Your task to perform on an android device: Open Google Chrome and open the bookmarks view Image 0: 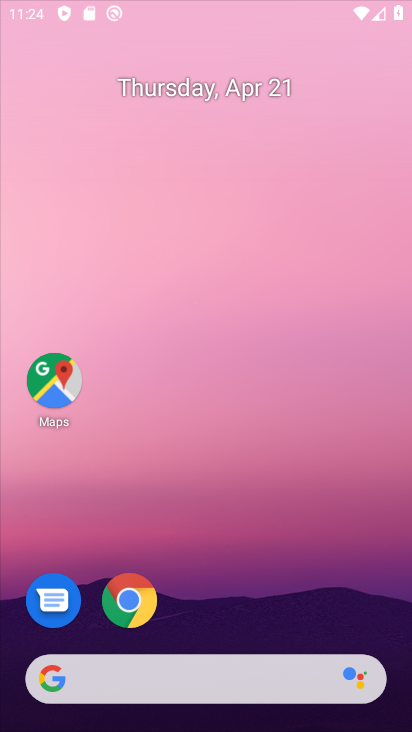
Step 0: press home button
Your task to perform on an android device: Open Google Chrome and open the bookmarks view Image 1: 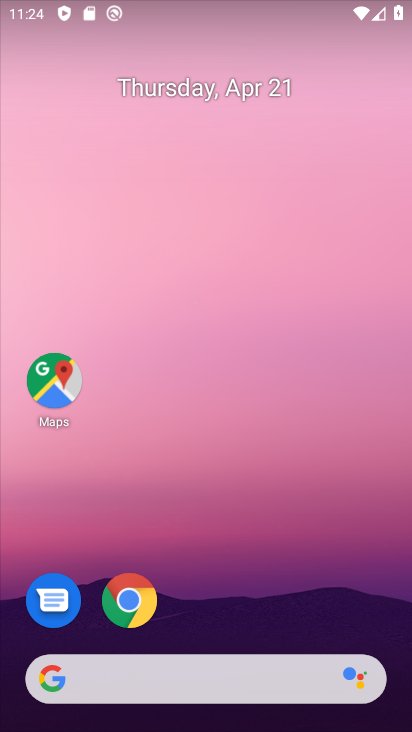
Step 1: click (133, 621)
Your task to perform on an android device: Open Google Chrome and open the bookmarks view Image 2: 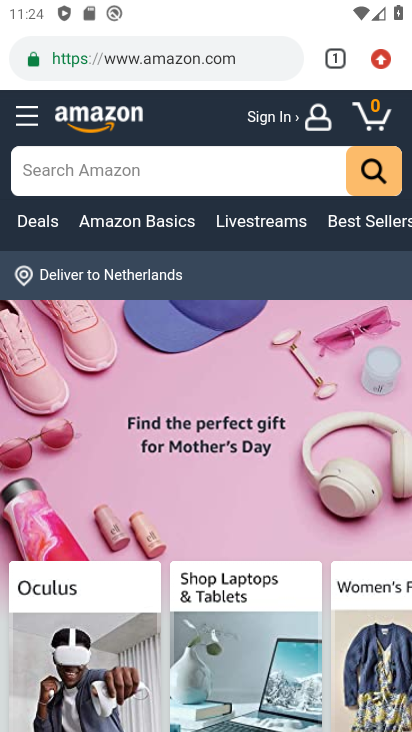
Step 2: click (381, 58)
Your task to perform on an android device: Open Google Chrome and open the bookmarks view Image 3: 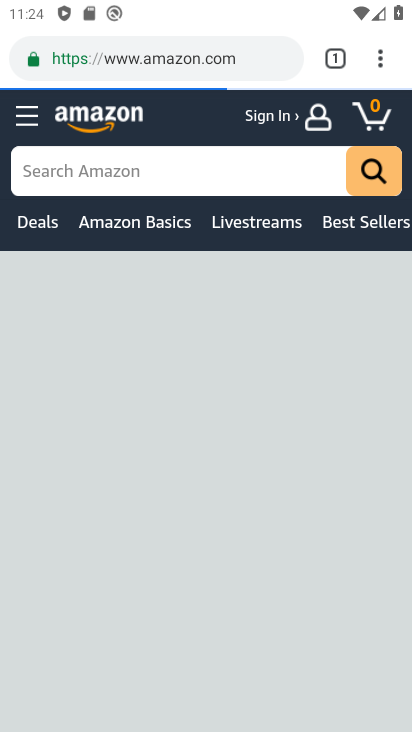
Step 3: task complete